Your task to perform on an android device: turn pop-ups off in chrome Image 0: 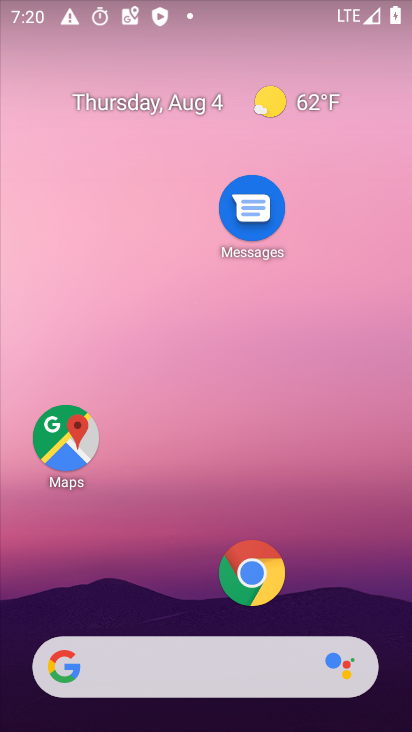
Step 0: press home button
Your task to perform on an android device: turn pop-ups off in chrome Image 1: 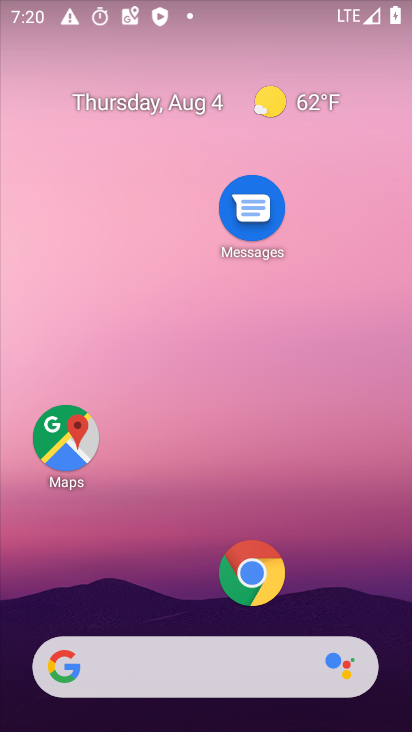
Step 1: drag from (179, 613) to (95, 217)
Your task to perform on an android device: turn pop-ups off in chrome Image 2: 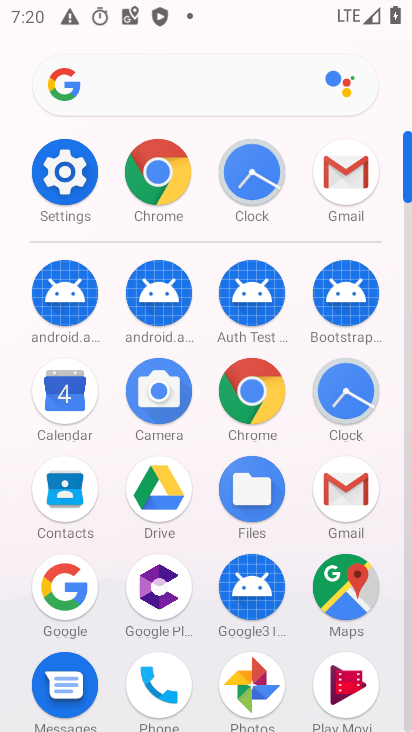
Step 2: click (150, 159)
Your task to perform on an android device: turn pop-ups off in chrome Image 3: 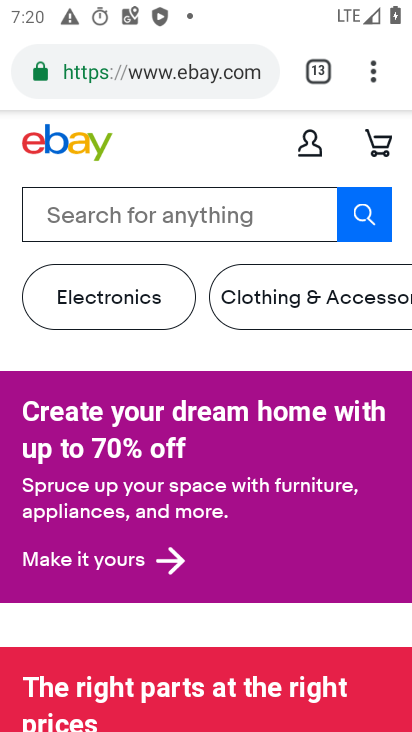
Step 3: drag from (371, 70) to (191, 582)
Your task to perform on an android device: turn pop-ups off in chrome Image 4: 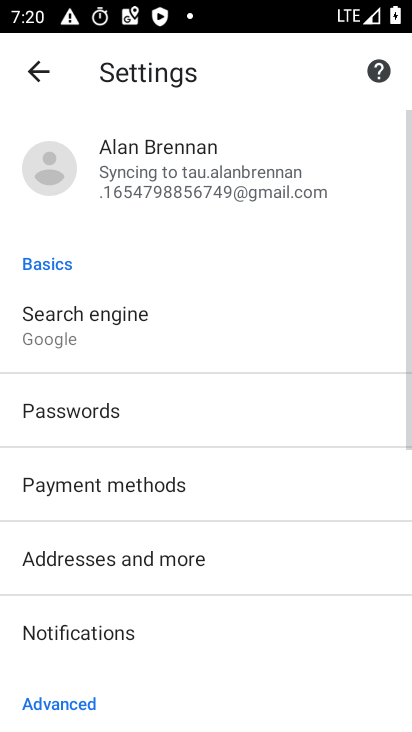
Step 4: drag from (255, 653) to (139, 243)
Your task to perform on an android device: turn pop-ups off in chrome Image 5: 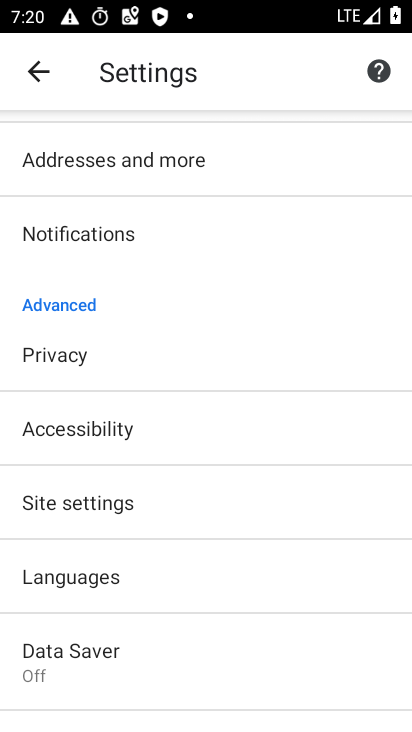
Step 5: click (78, 501)
Your task to perform on an android device: turn pop-ups off in chrome Image 6: 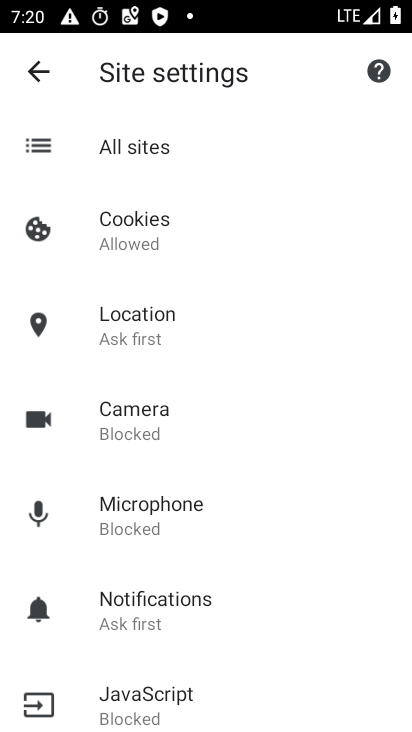
Step 6: drag from (299, 639) to (232, 347)
Your task to perform on an android device: turn pop-ups off in chrome Image 7: 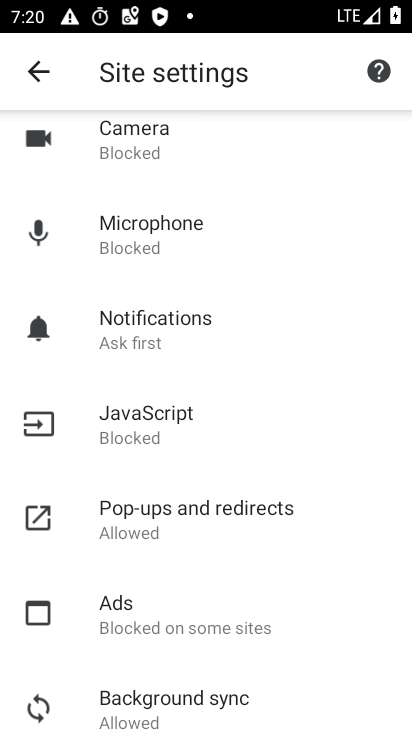
Step 7: click (173, 513)
Your task to perform on an android device: turn pop-ups off in chrome Image 8: 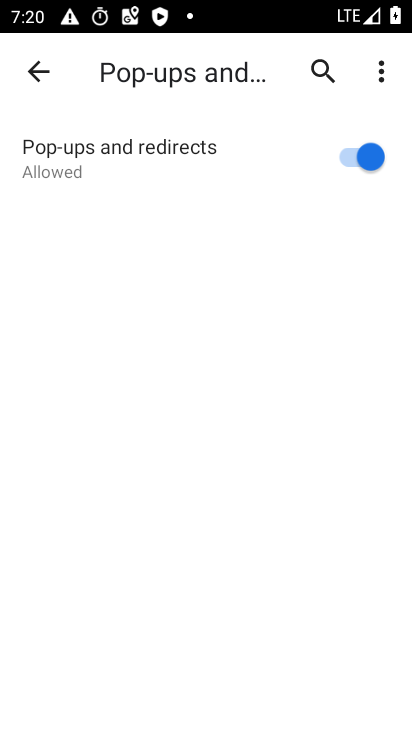
Step 8: click (374, 155)
Your task to perform on an android device: turn pop-ups off in chrome Image 9: 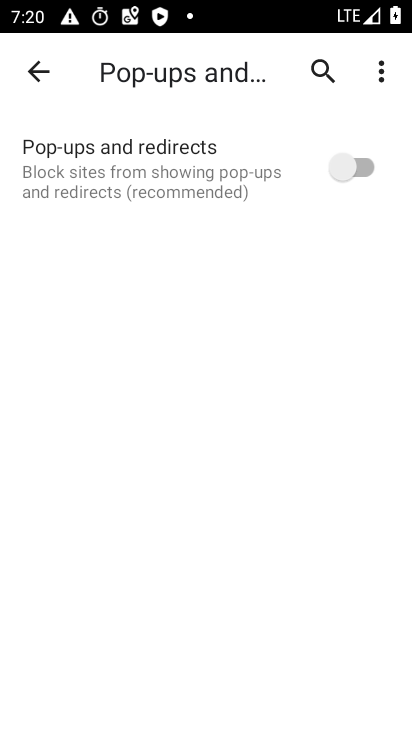
Step 9: task complete